Your task to perform on an android device: Open calendar and show me the first week of next month Image 0: 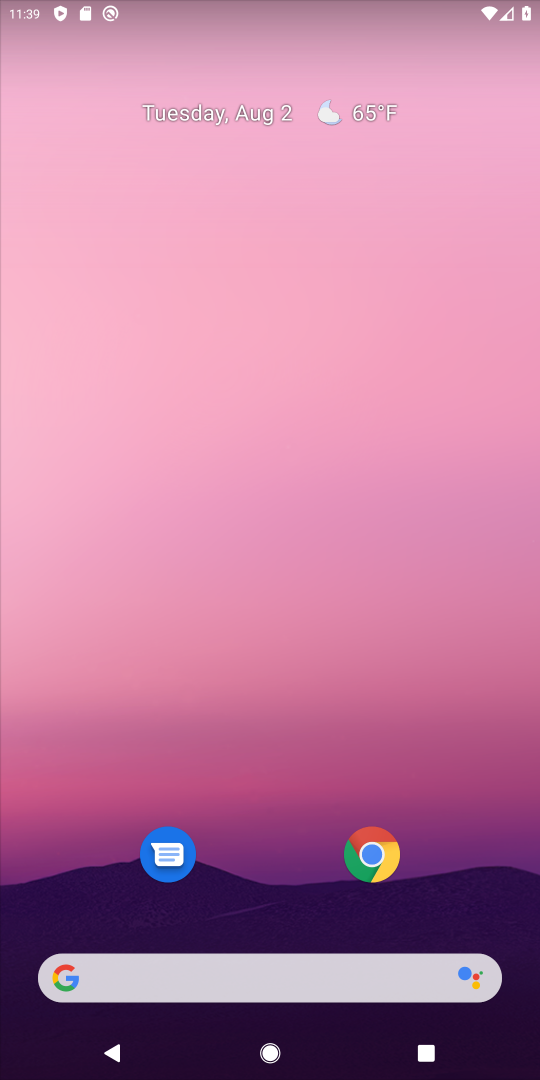
Step 0: drag from (444, 884) to (428, 118)
Your task to perform on an android device: Open calendar and show me the first week of next month Image 1: 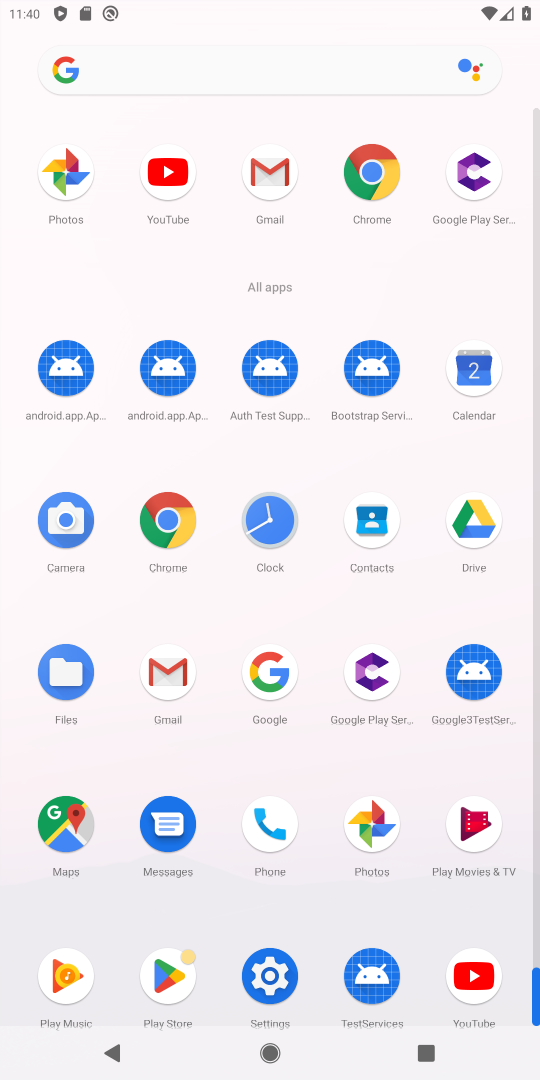
Step 1: click (482, 368)
Your task to perform on an android device: Open calendar and show me the first week of next month Image 2: 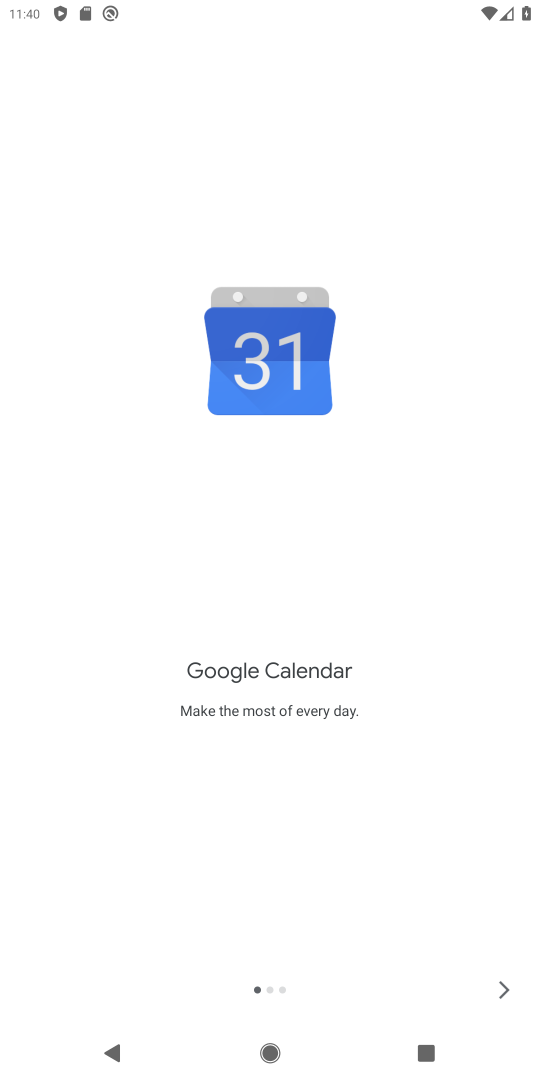
Step 2: click (484, 995)
Your task to perform on an android device: Open calendar and show me the first week of next month Image 3: 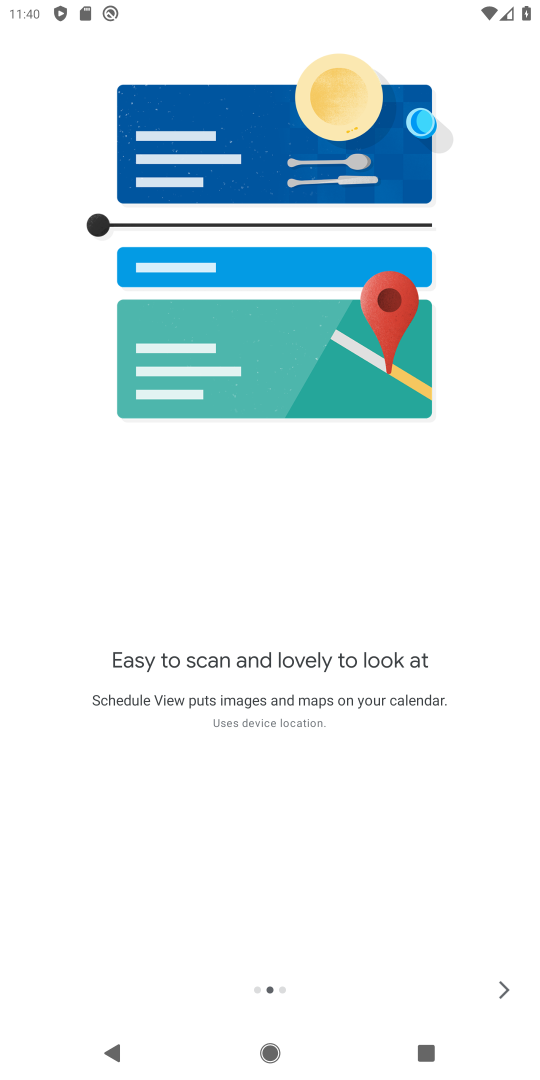
Step 3: click (491, 995)
Your task to perform on an android device: Open calendar and show me the first week of next month Image 4: 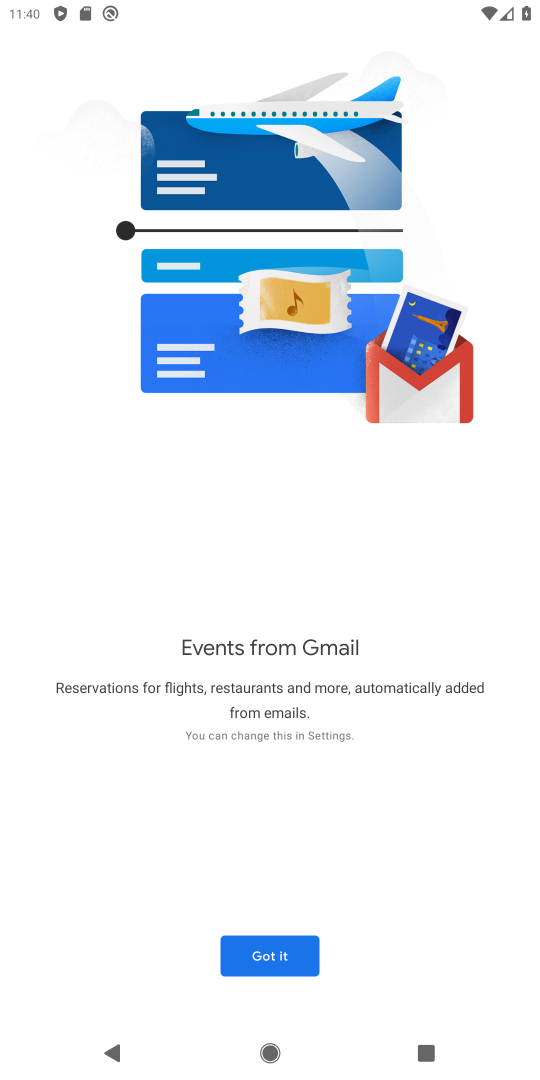
Step 4: click (492, 994)
Your task to perform on an android device: Open calendar and show me the first week of next month Image 5: 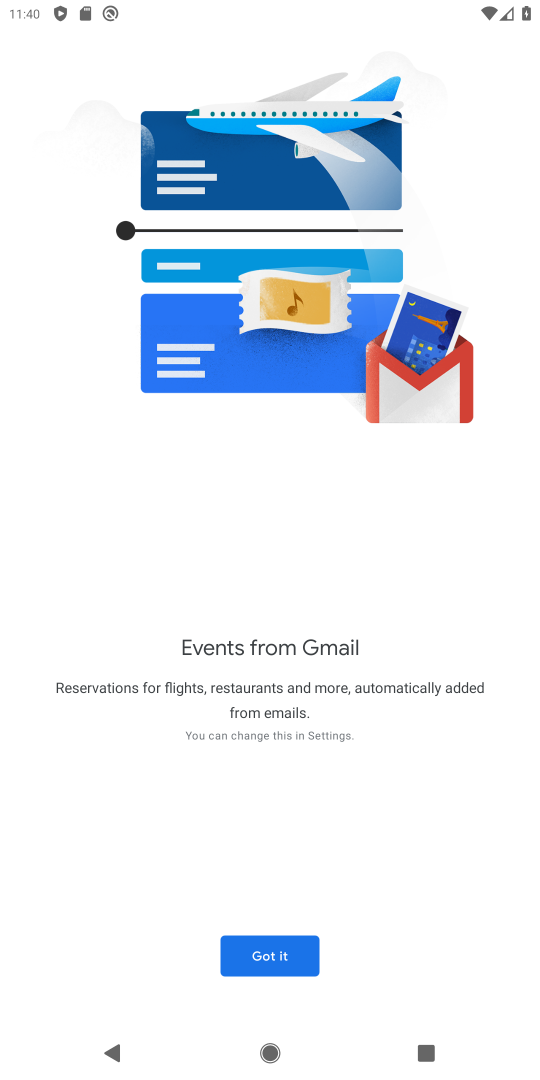
Step 5: click (278, 956)
Your task to perform on an android device: Open calendar and show me the first week of next month Image 6: 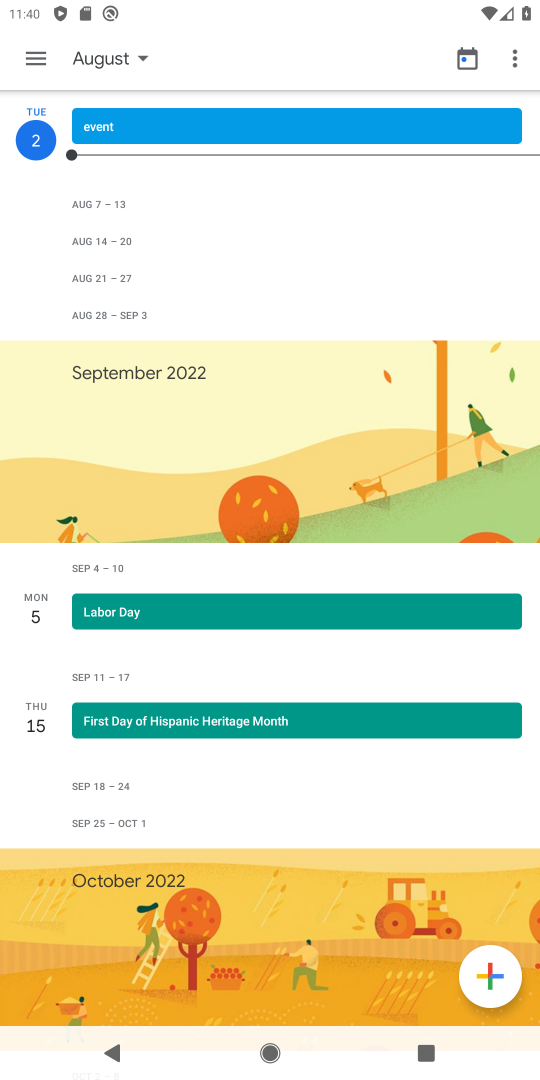
Step 6: click (125, 54)
Your task to perform on an android device: Open calendar and show me the first week of next month Image 7: 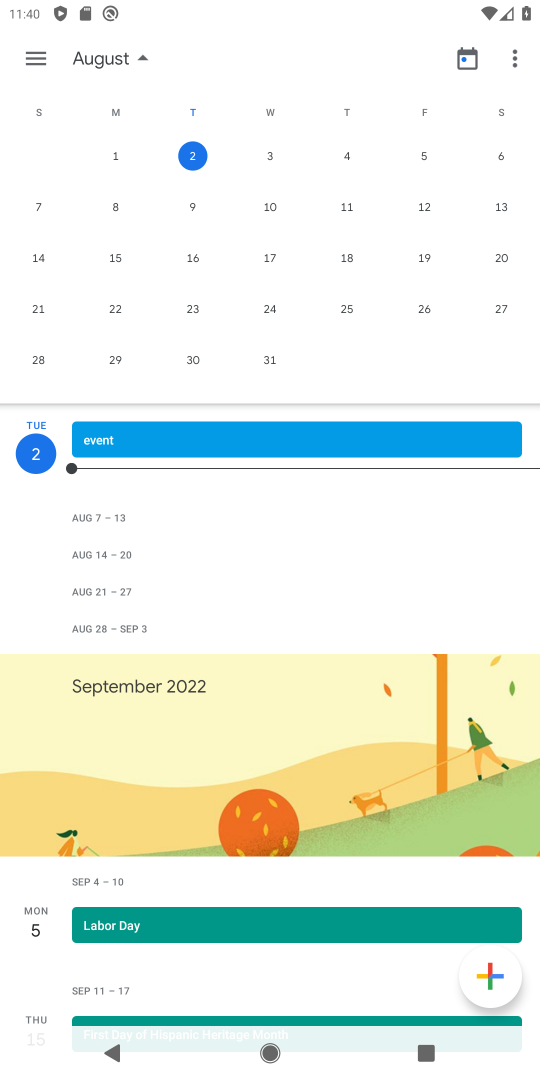
Step 7: drag from (489, 259) to (17, 237)
Your task to perform on an android device: Open calendar and show me the first week of next month Image 8: 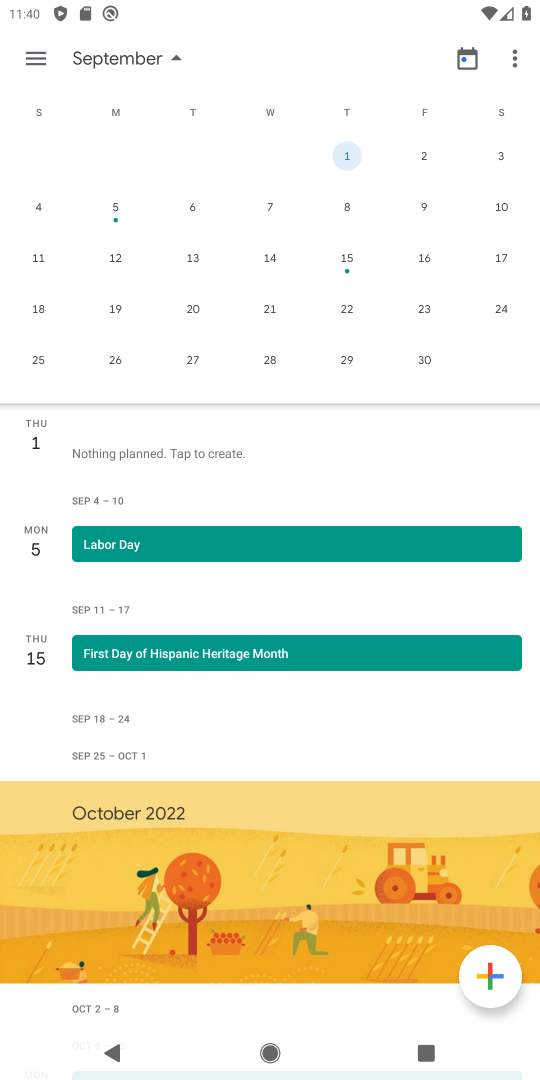
Step 8: click (348, 163)
Your task to perform on an android device: Open calendar and show me the first week of next month Image 9: 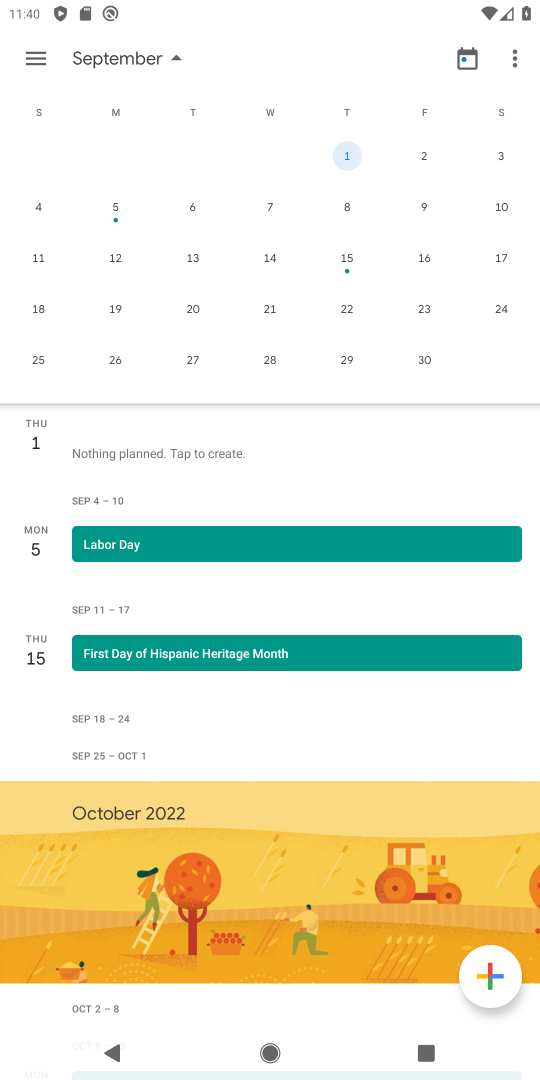
Step 9: click (419, 158)
Your task to perform on an android device: Open calendar and show me the first week of next month Image 10: 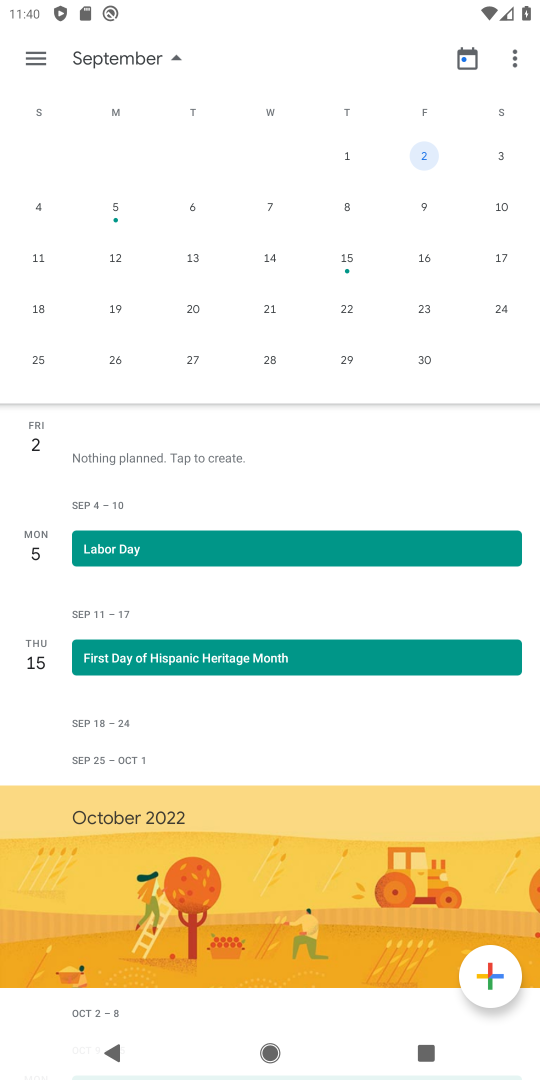
Step 10: click (509, 152)
Your task to perform on an android device: Open calendar and show me the first week of next month Image 11: 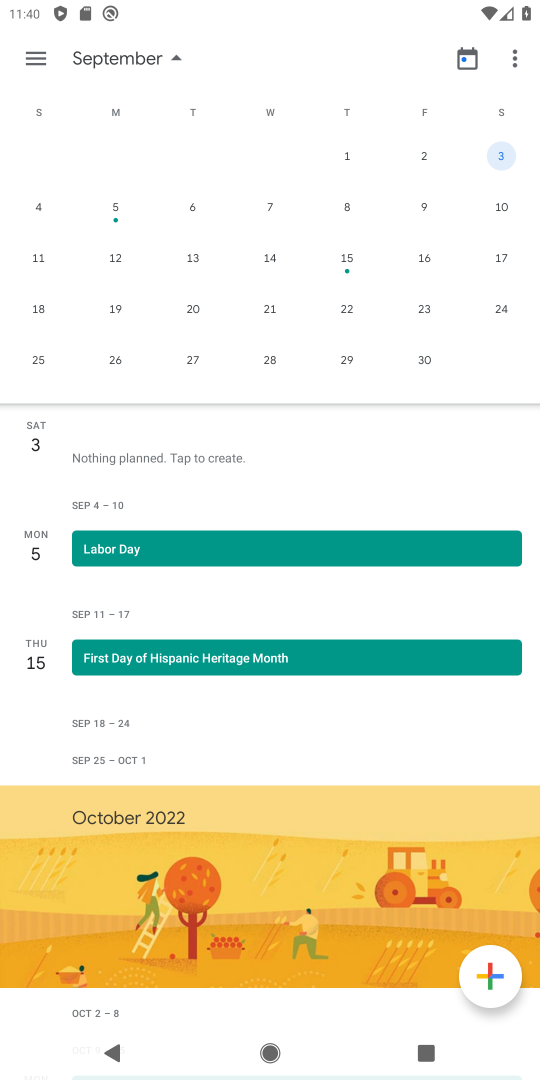
Step 11: task complete